Your task to perform on an android device: Open Google Chrome and click the shortcut for Amazon.com Image 0: 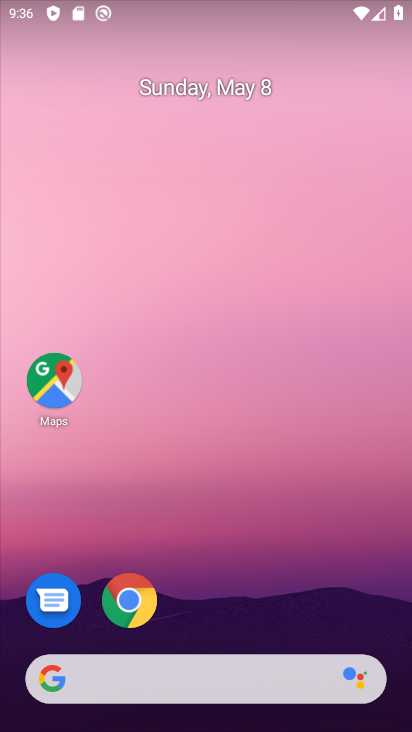
Step 0: click (143, 606)
Your task to perform on an android device: Open Google Chrome and click the shortcut for Amazon.com Image 1: 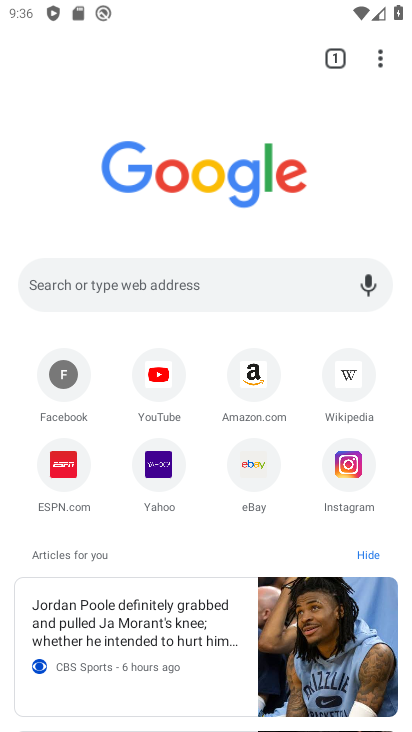
Step 1: click (254, 371)
Your task to perform on an android device: Open Google Chrome and click the shortcut for Amazon.com Image 2: 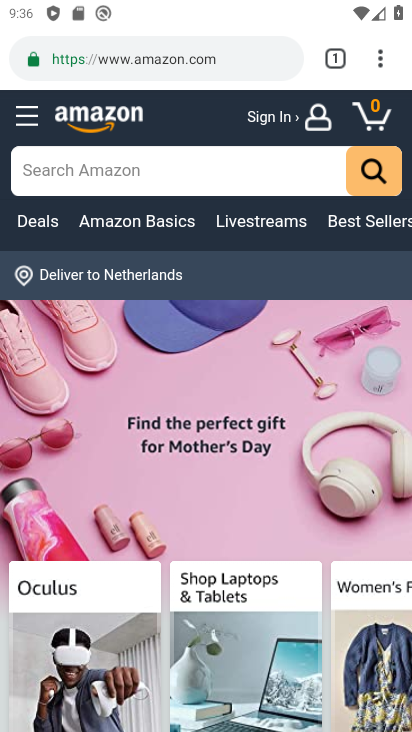
Step 2: task complete